Your task to perform on an android device: Go to Reddit.com Image 0: 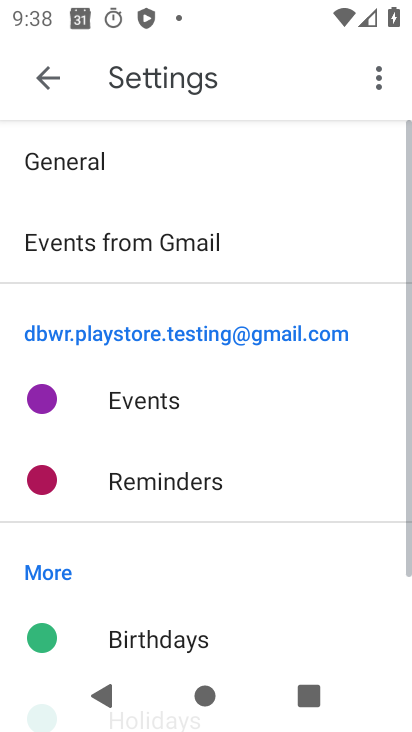
Step 0: drag from (251, 601) to (378, 185)
Your task to perform on an android device: Go to Reddit.com Image 1: 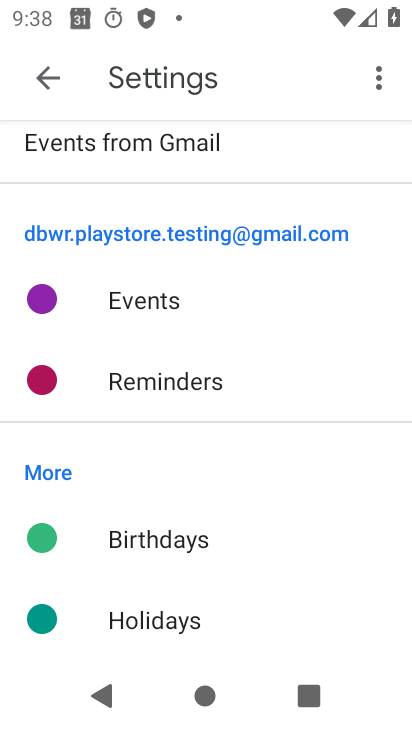
Step 1: drag from (226, 610) to (286, 189)
Your task to perform on an android device: Go to Reddit.com Image 2: 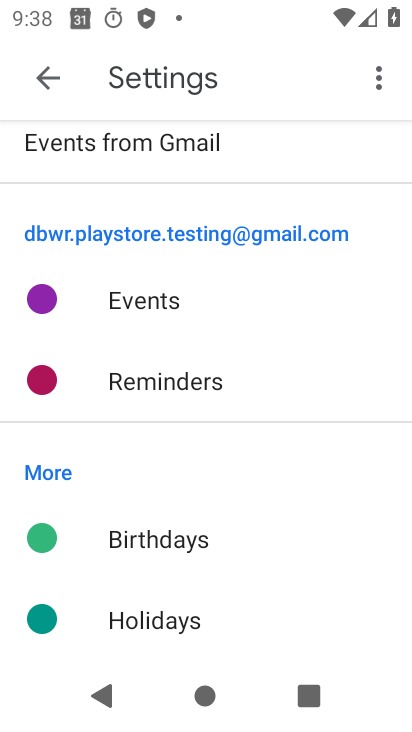
Step 2: press home button
Your task to perform on an android device: Go to Reddit.com Image 3: 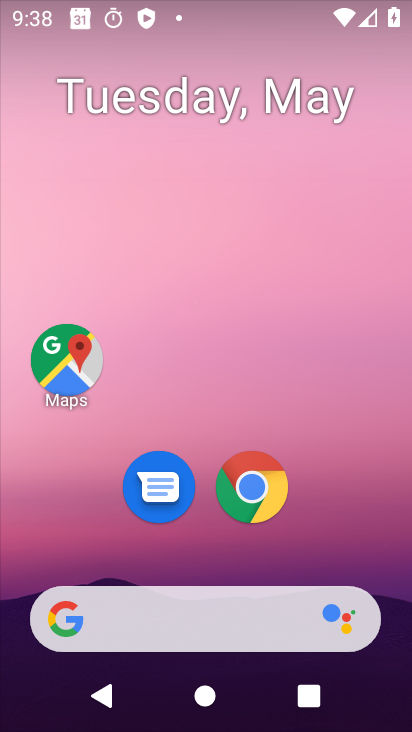
Step 3: drag from (209, 419) to (210, 90)
Your task to perform on an android device: Go to Reddit.com Image 4: 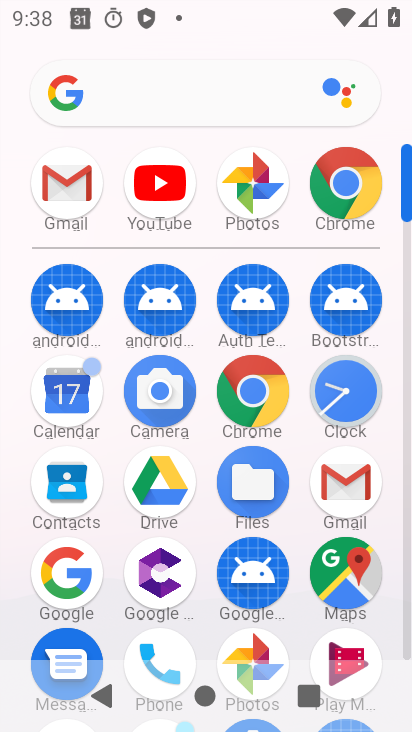
Step 4: click (225, 103)
Your task to perform on an android device: Go to Reddit.com Image 5: 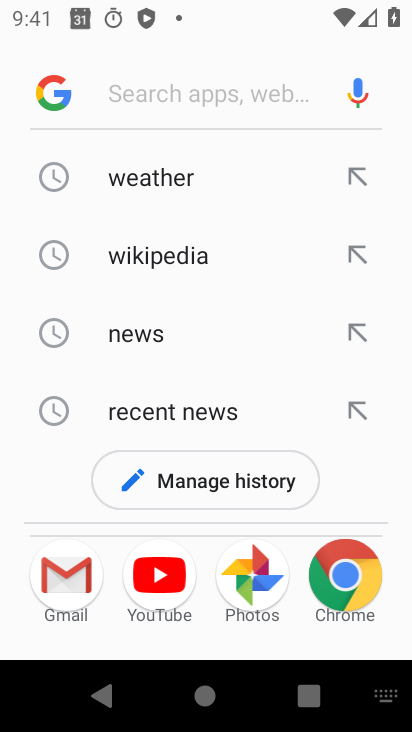
Step 5: type "reddit"
Your task to perform on an android device: Go to Reddit.com Image 6: 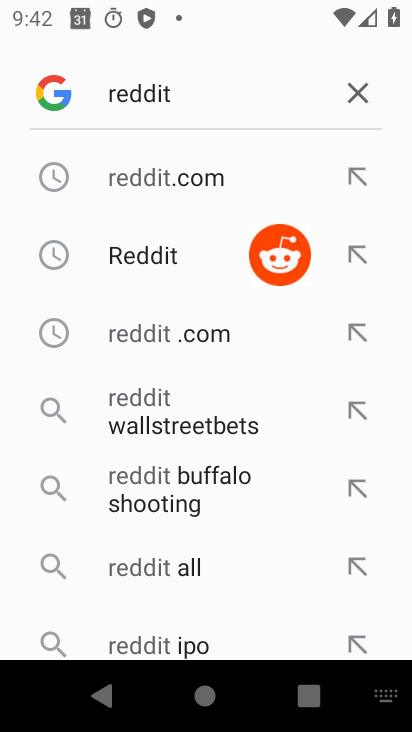
Step 6: click (200, 179)
Your task to perform on an android device: Go to Reddit.com Image 7: 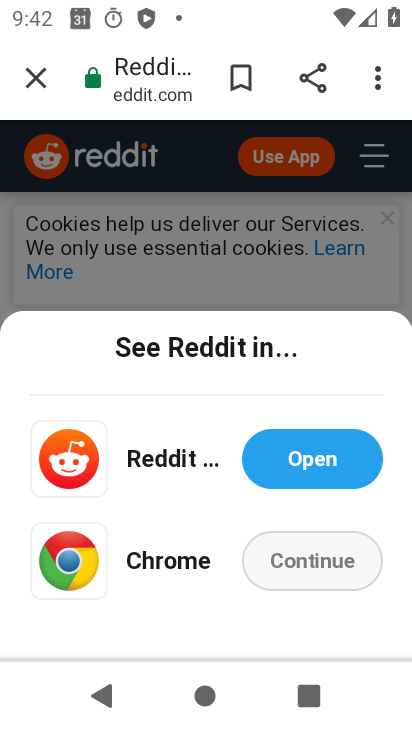
Step 7: task complete